Your task to perform on an android device: View the shopping cart on target. Search for alienware area 51 on target, select the first entry, and add it to the cart. Image 0: 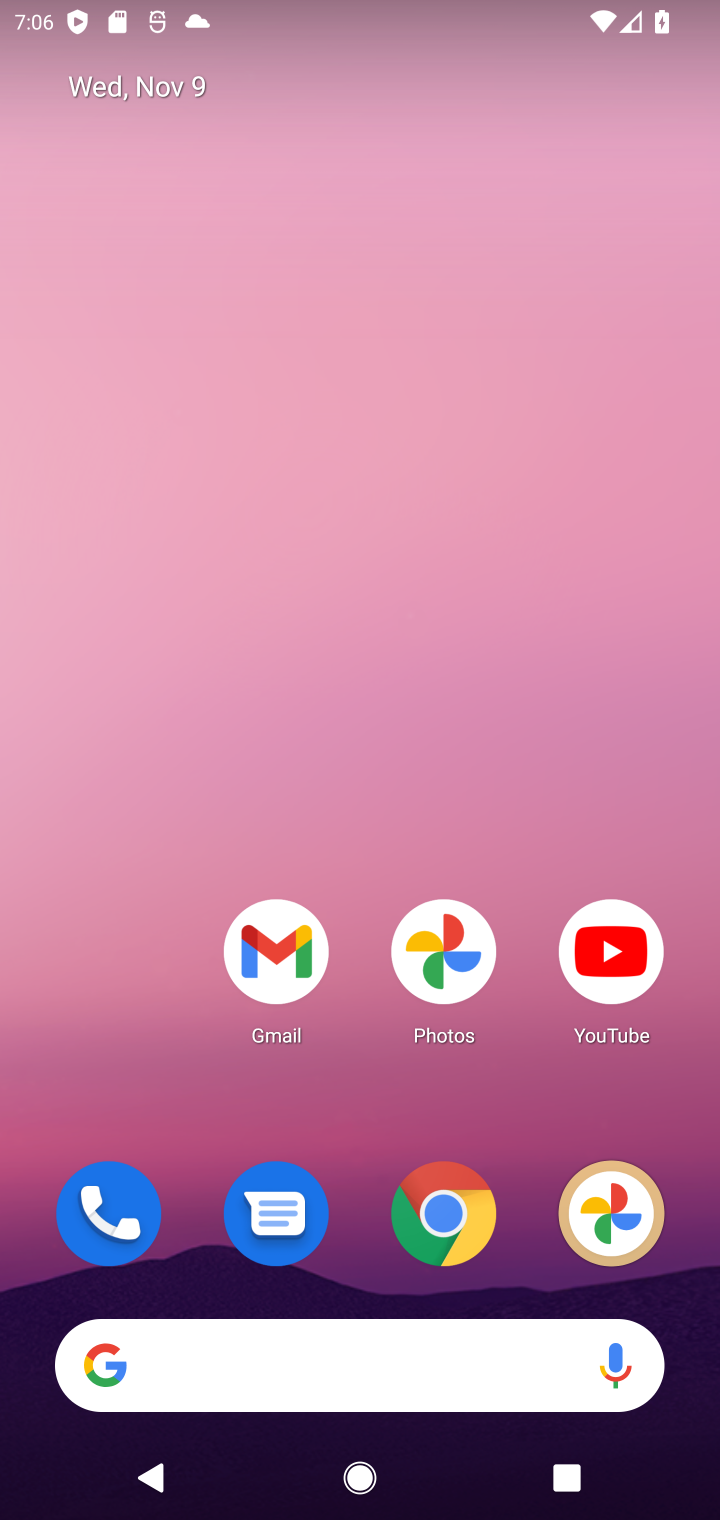
Step 0: click (457, 1225)
Your task to perform on an android device: View the shopping cart on target. Search for alienware area 51 on target, select the first entry, and add it to the cart. Image 1: 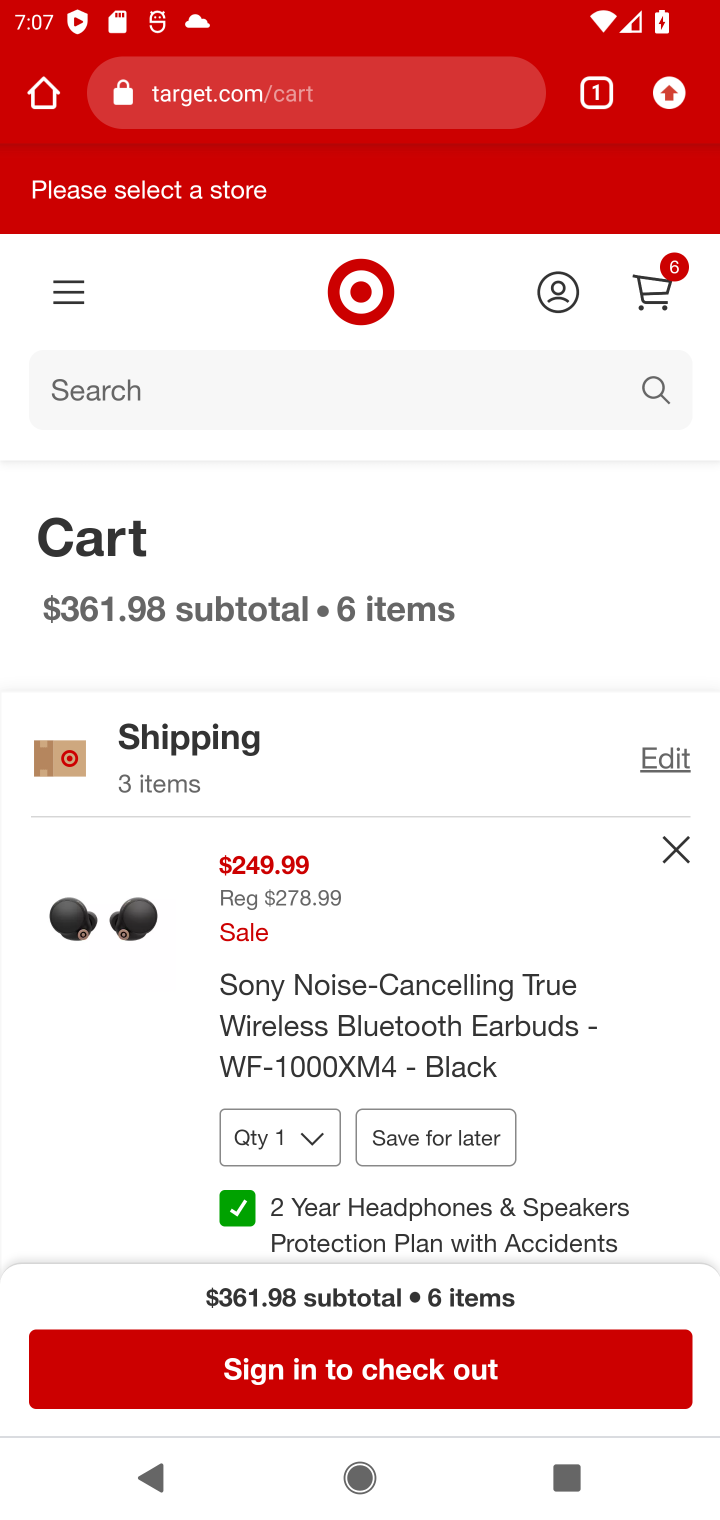
Step 1: click (214, 94)
Your task to perform on an android device: View the shopping cart on target. Search for alienware area 51 on target, select the first entry, and add it to the cart. Image 2: 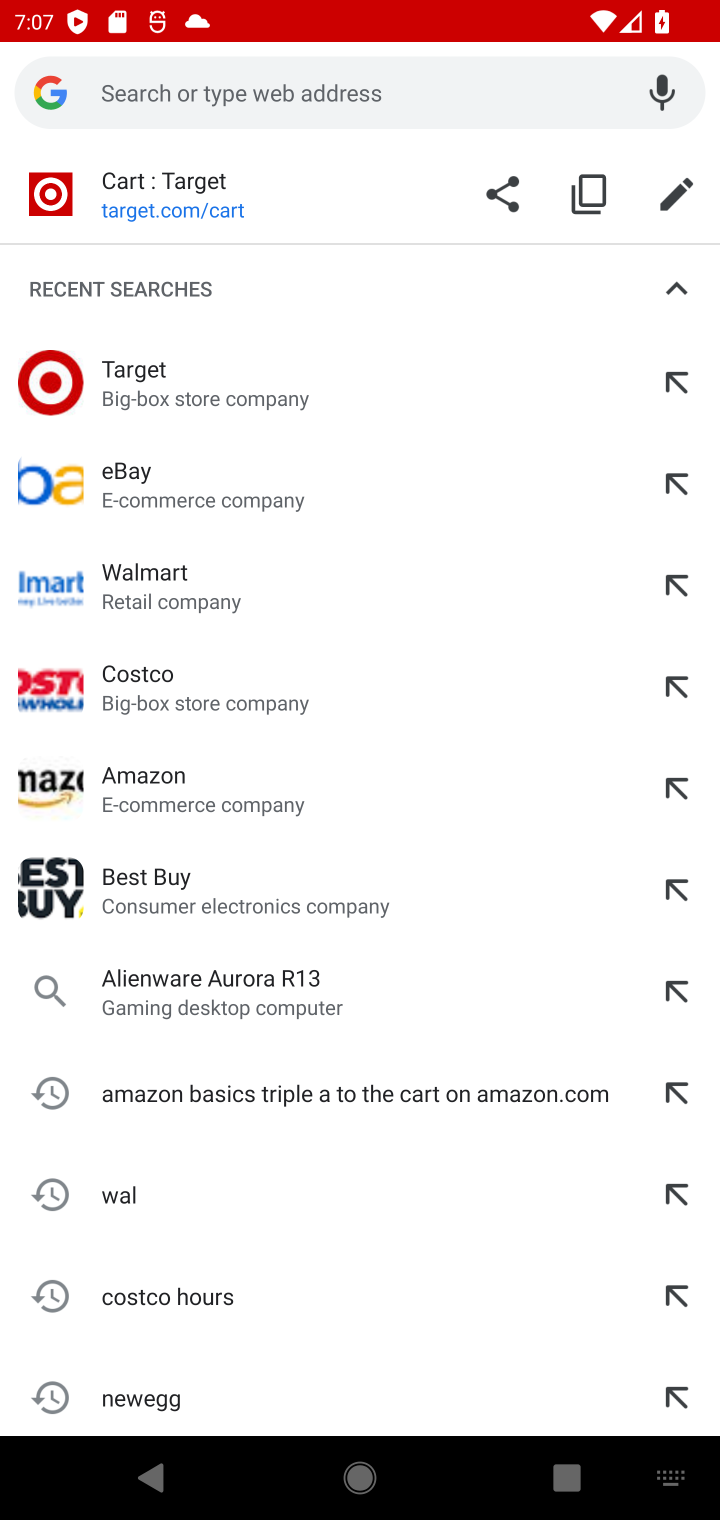
Step 2: type "target"
Your task to perform on an android device: View the shopping cart on target. Search for alienware area 51 on target, select the first entry, and add it to the cart. Image 3: 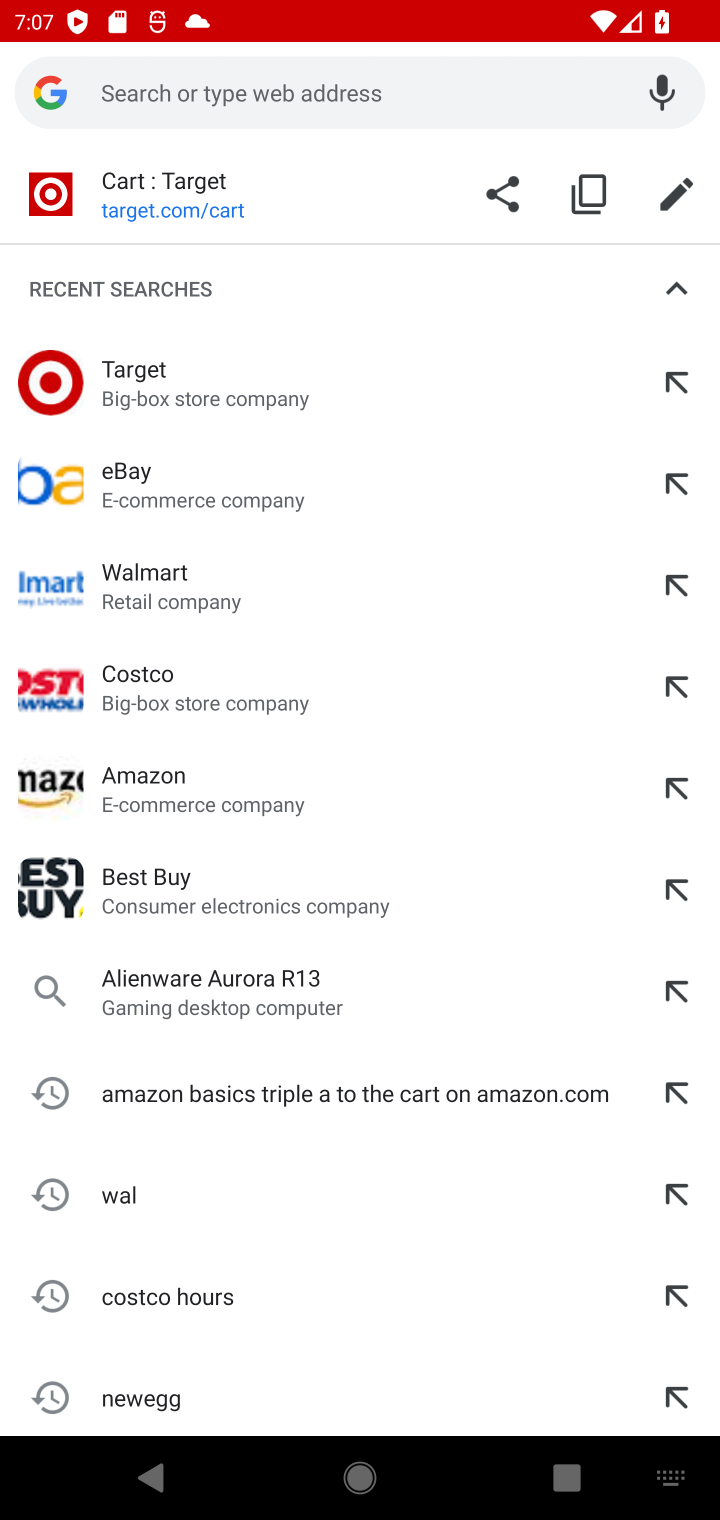
Step 3: click (178, 370)
Your task to perform on an android device: View the shopping cart on target. Search for alienware area 51 on target, select the first entry, and add it to the cart. Image 4: 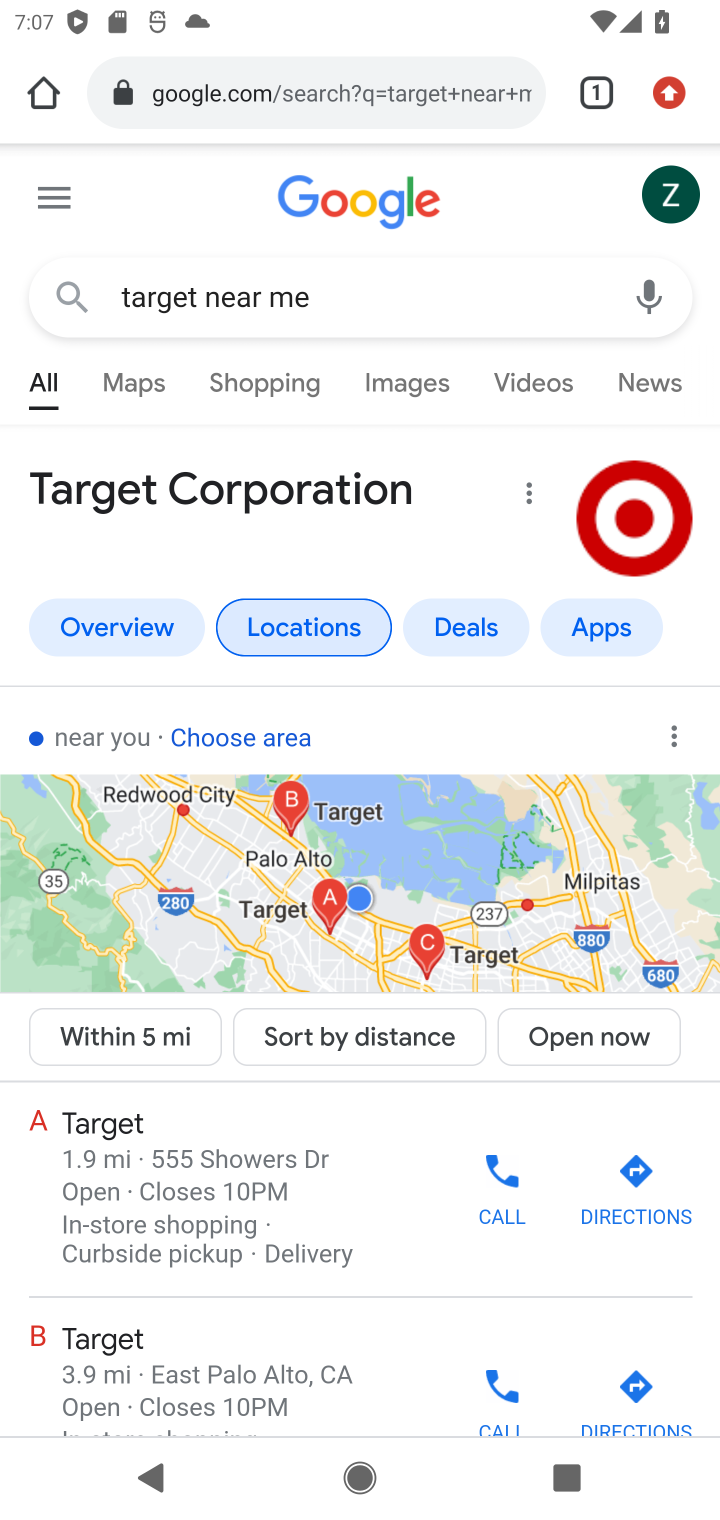
Step 4: drag from (266, 1234) to (388, 515)
Your task to perform on an android device: View the shopping cart on target. Search for alienware area 51 on target, select the first entry, and add it to the cart. Image 5: 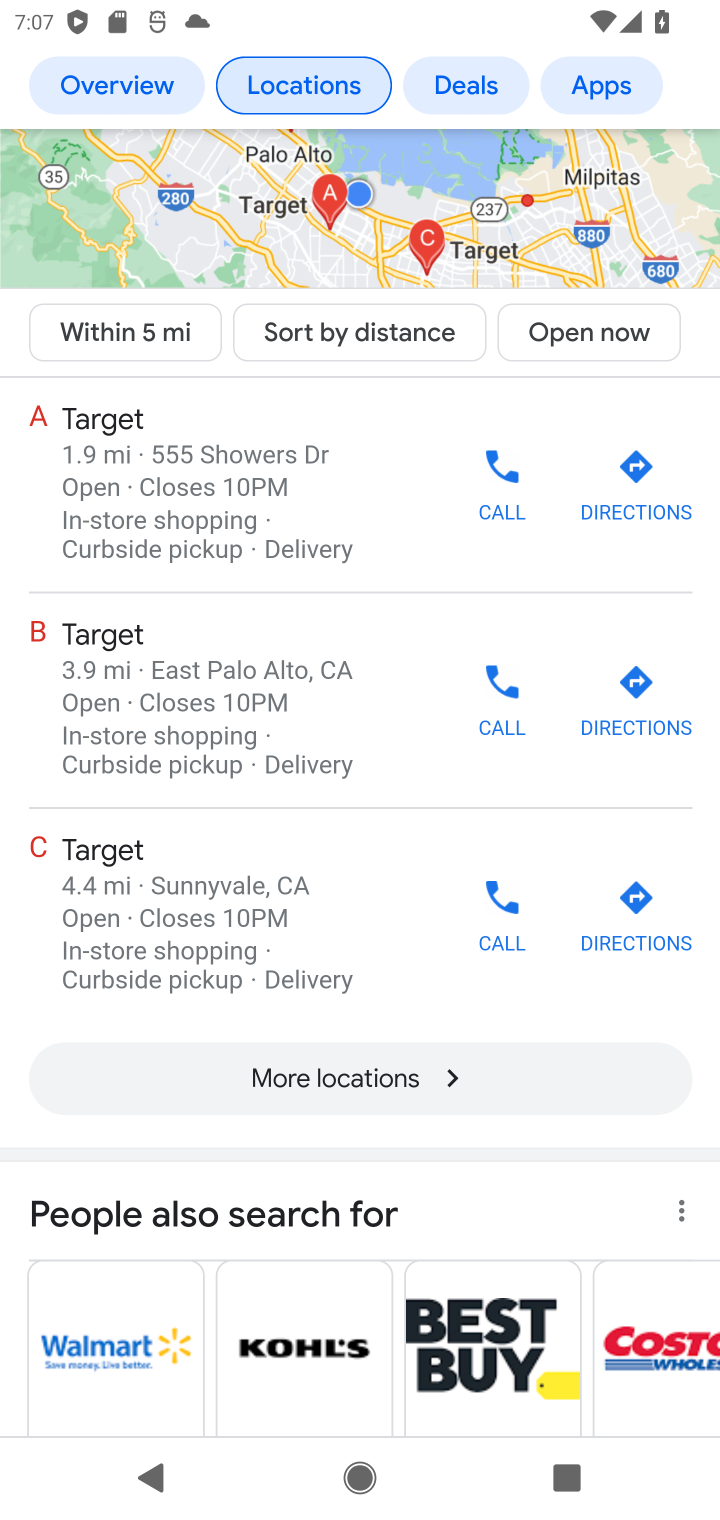
Step 5: drag from (196, 1301) to (206, 674)
Your task to perform on an android device: View the shopping cart on target. Search for alienware area 51 on target, select the first entry, and add it to the cart. Image 6: 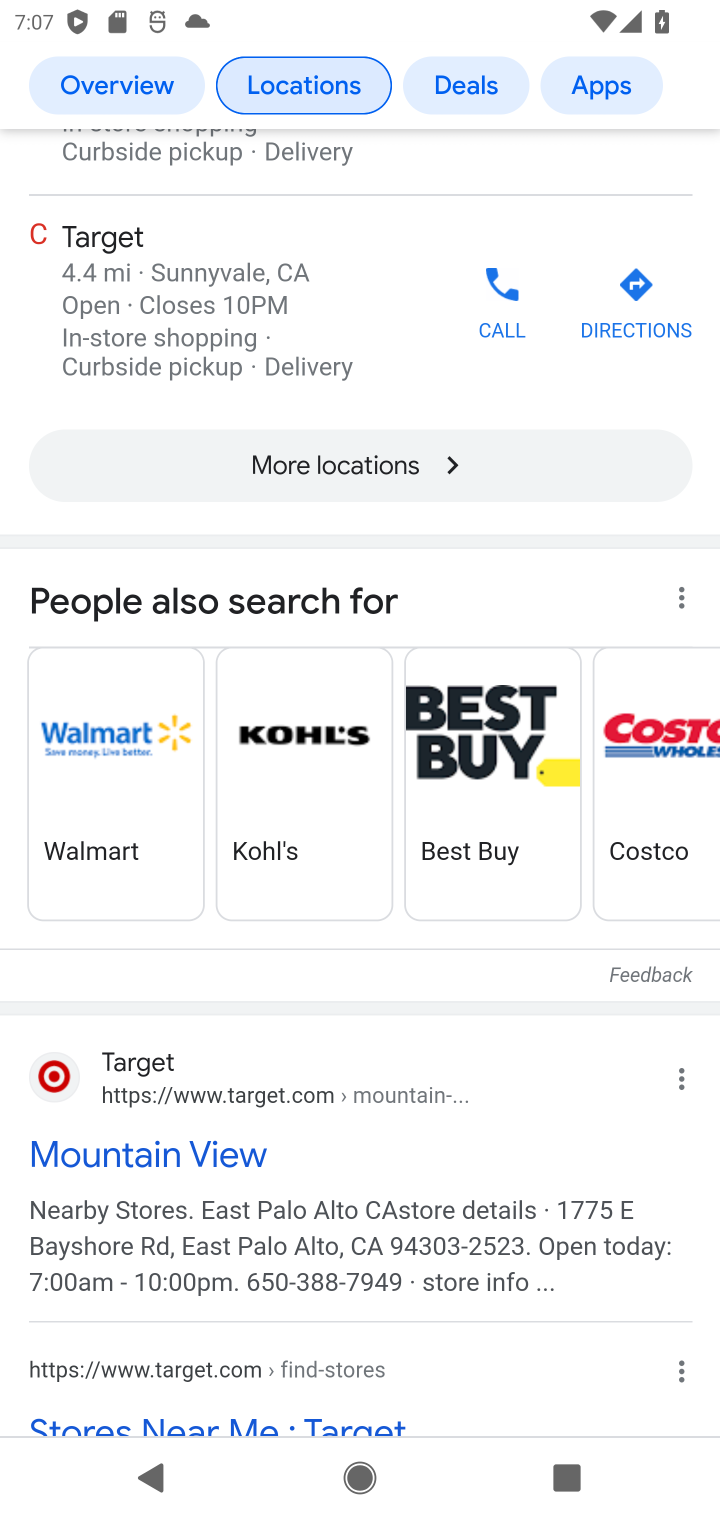
Step 6: click (187, 1236)
Your task to perform on an android device: View the shopping cart on target. Search for alienware area 51 on target, select the first entry, and add it to the cart. Image 7: 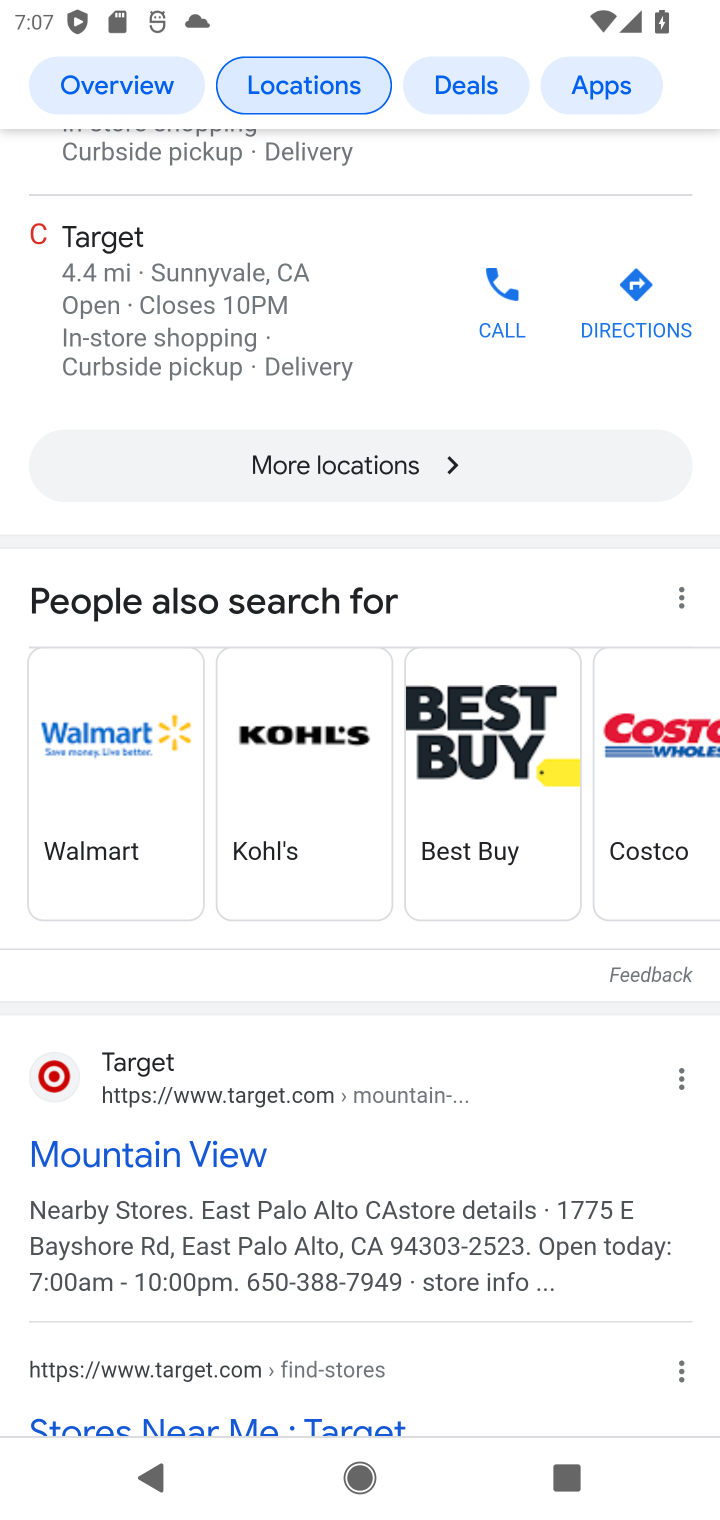
Step 7: click (73, 1164)
Your task to perform on an android device: View the shopping cart on target. Search for alienware area 51 on target, select the first entry, and add it to the cart. Image 8: 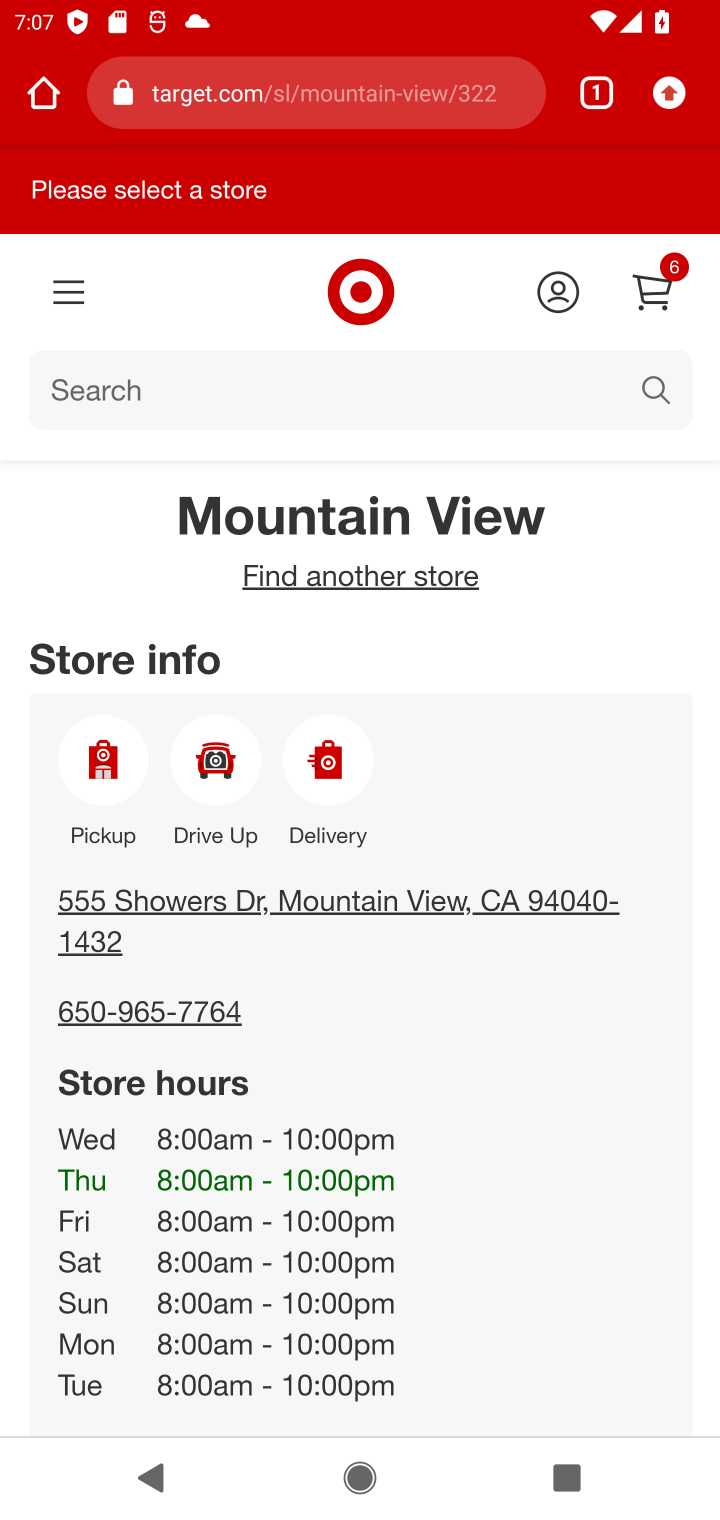
Step 8: click (508, 383)
Your task to perform on an android device: View the shopping cart on target. Search for alienware area 51 on target, select the first entry, and add it to the cart. Image 9: 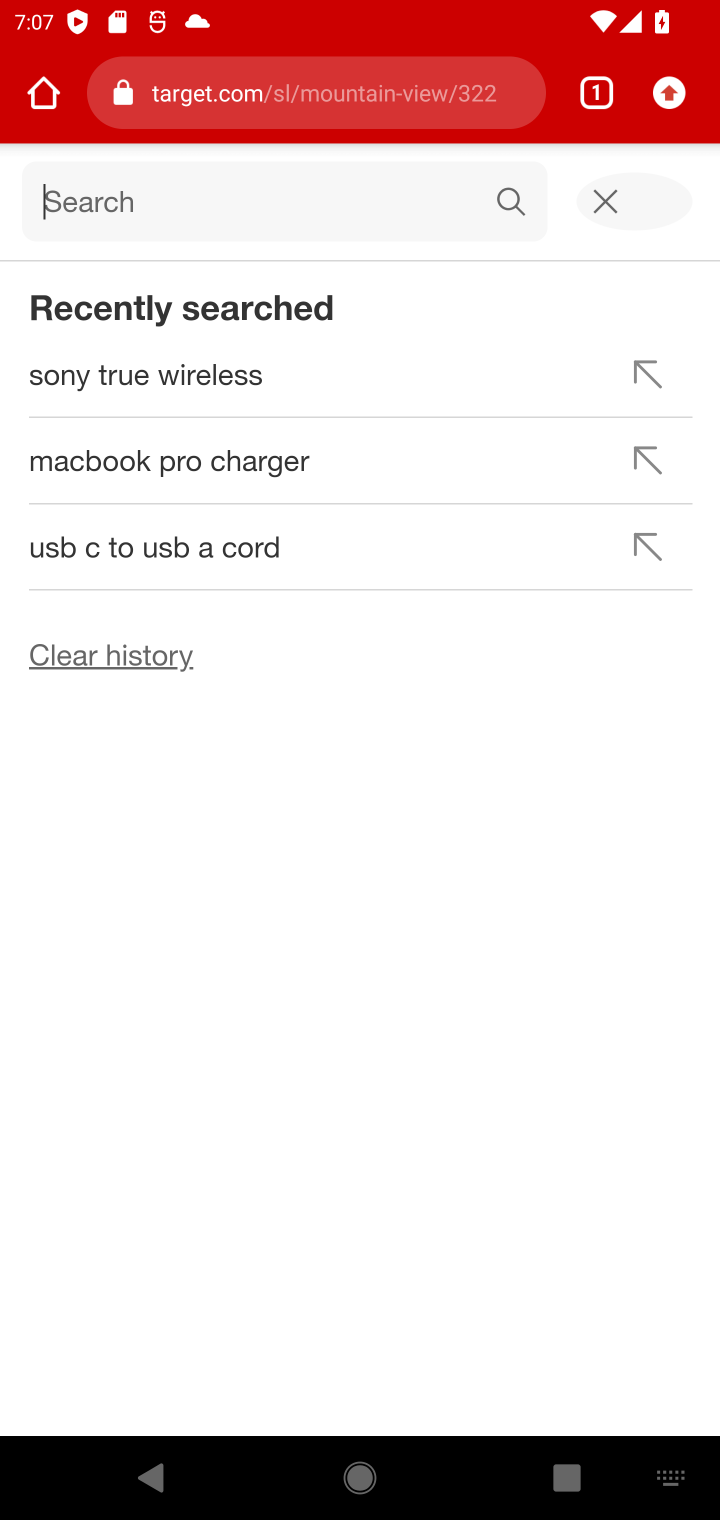
Step 9: type "alienware area 51"
Your task to perform on an android device: View the shopping cart on target. Search for alienware area 51 on target, select the first entry, and add it to the cart. Image 10: 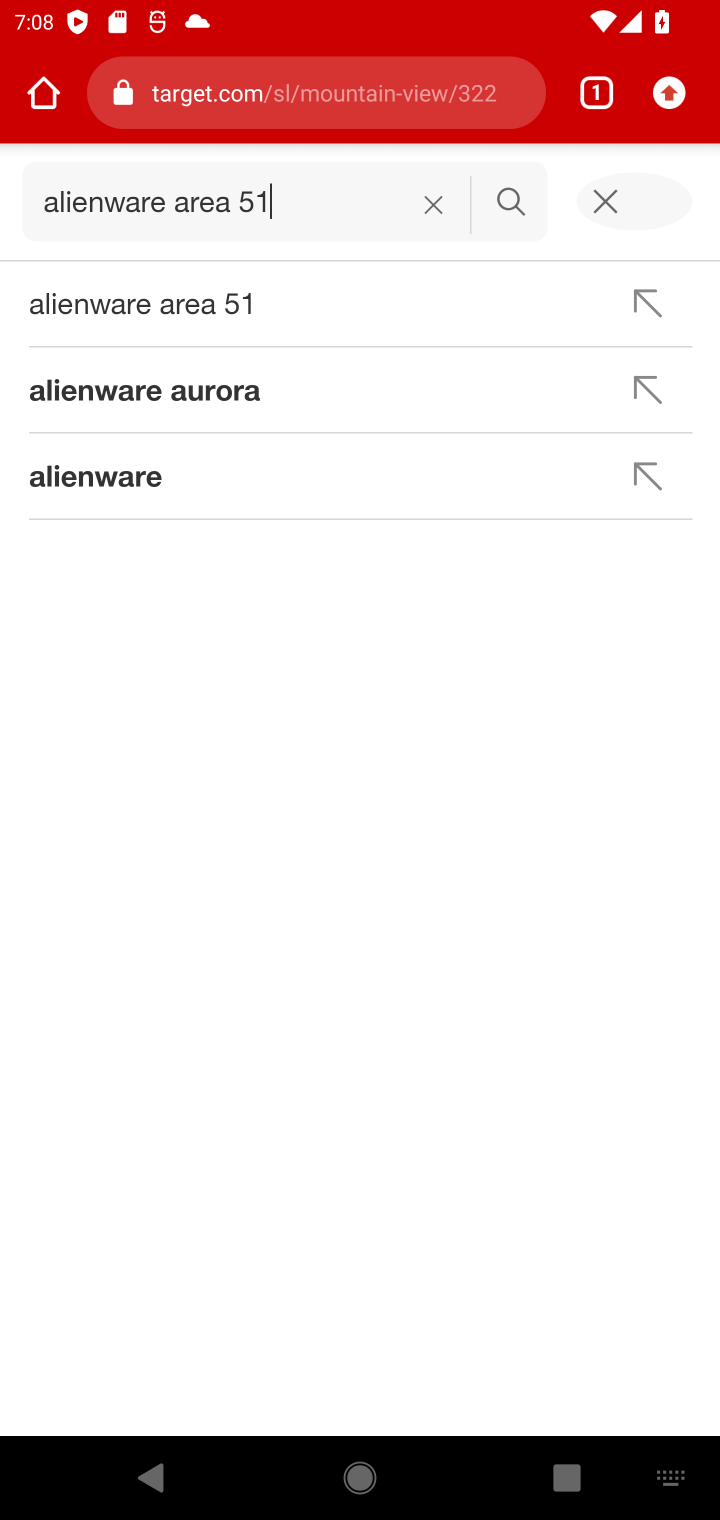
Step 10: click (167, 291)
Your task to perform on an android device: View the shopping cart on target. Search for alienware area 51 on target, select the first entry, and add it to the cart. Image 11: 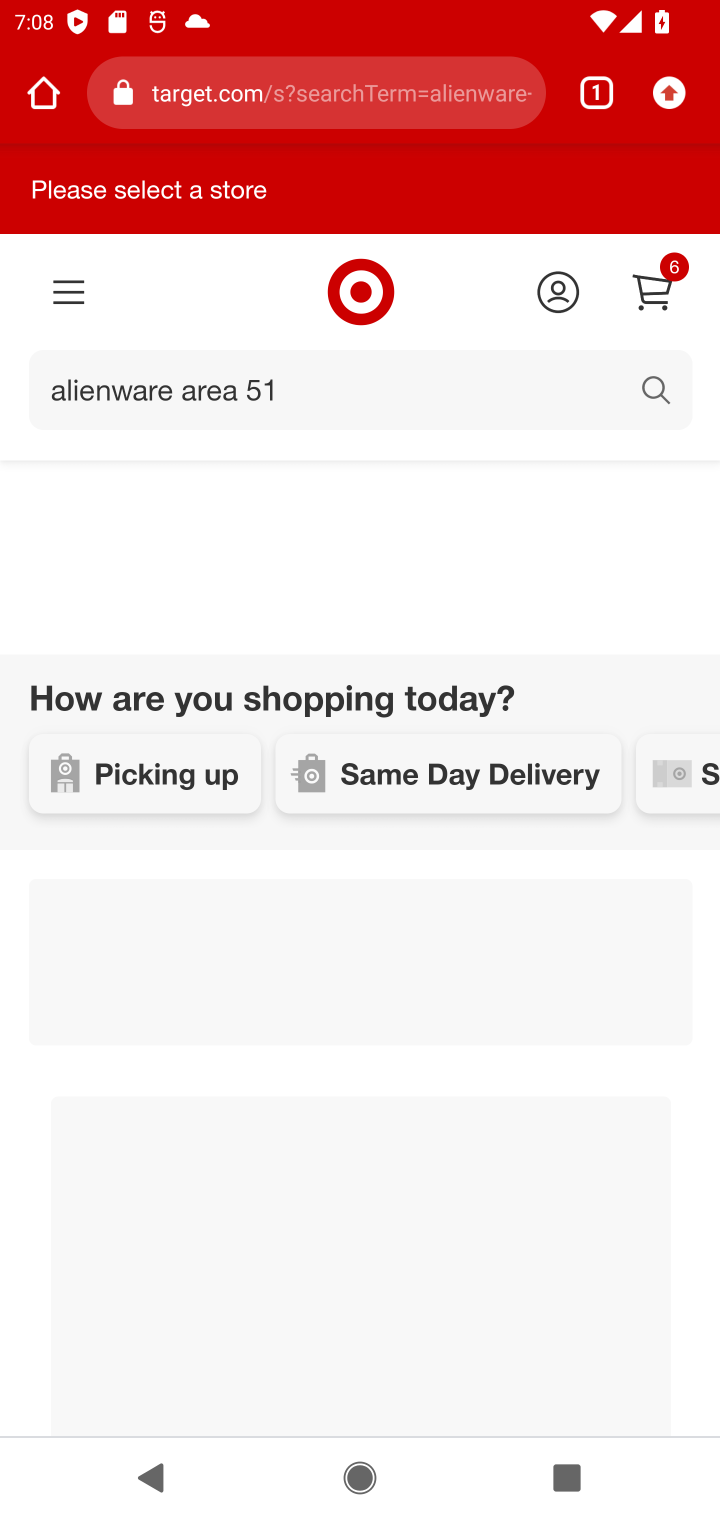
Step 11: drag from (244, 1059) to (347, 347)
Your task to perform on an android device: View the shopping cart on target. Search for alienware area 51 on target, select the first entry, and add it to the cart. Image 12: 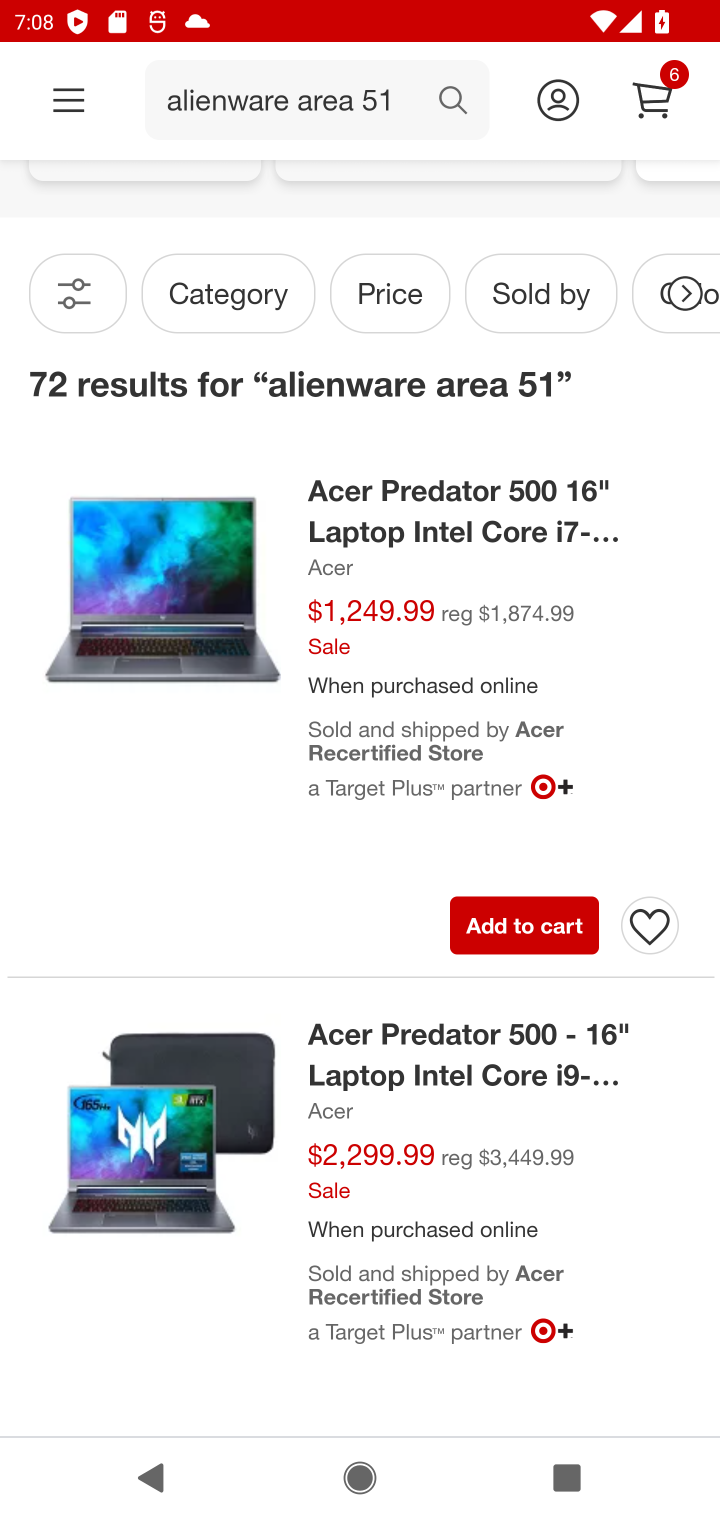
Step 12: drag from (220, 1129) to (330, 546)
Your task to perform on an android device: View the shopping cart on target. Search for alienware area 51 on target, select the first entry, and add it to the cart. Image 13: 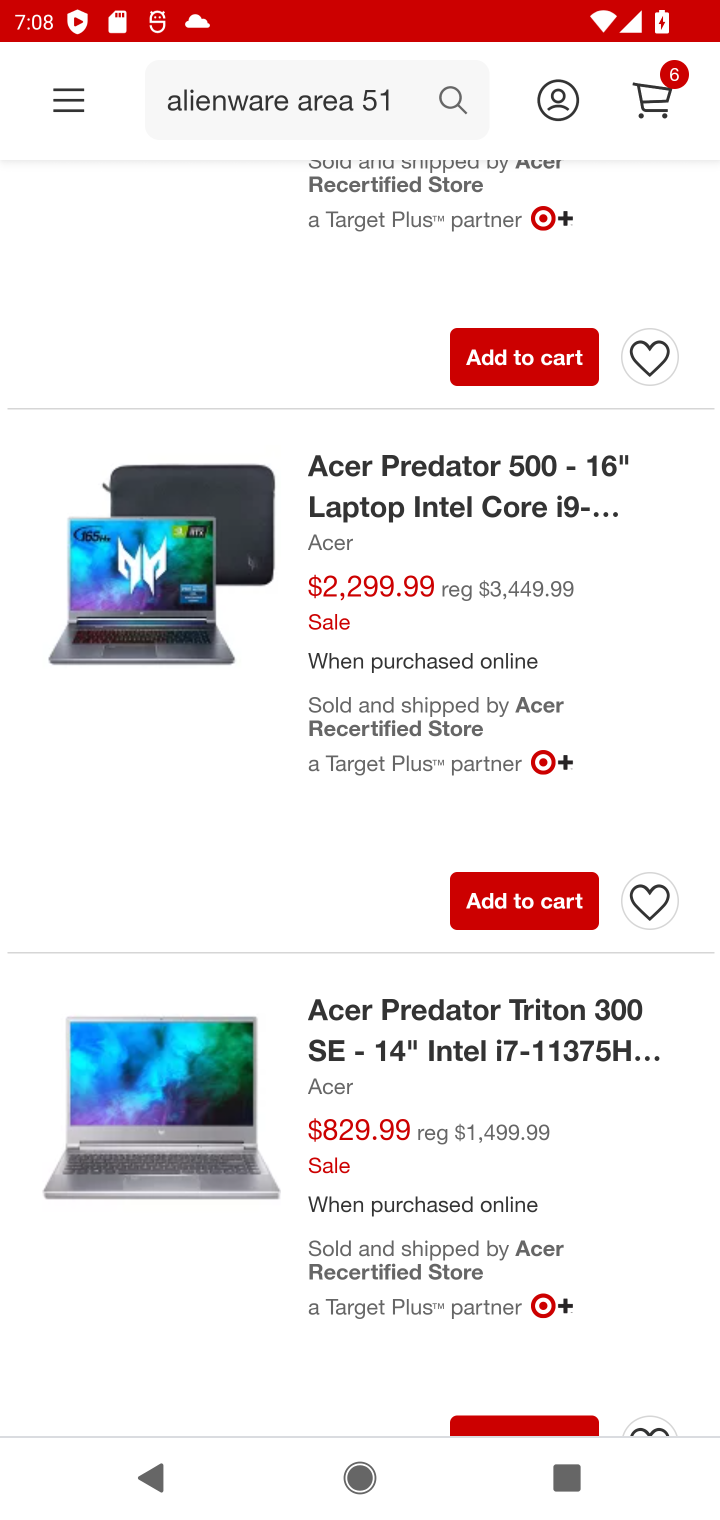
Step 13: click (440, 1019)
Your task to perform on an android device: View the shopping cart on target. Search for alienware area 51 on target, select the first entry, and add it to the cart. Image 14: 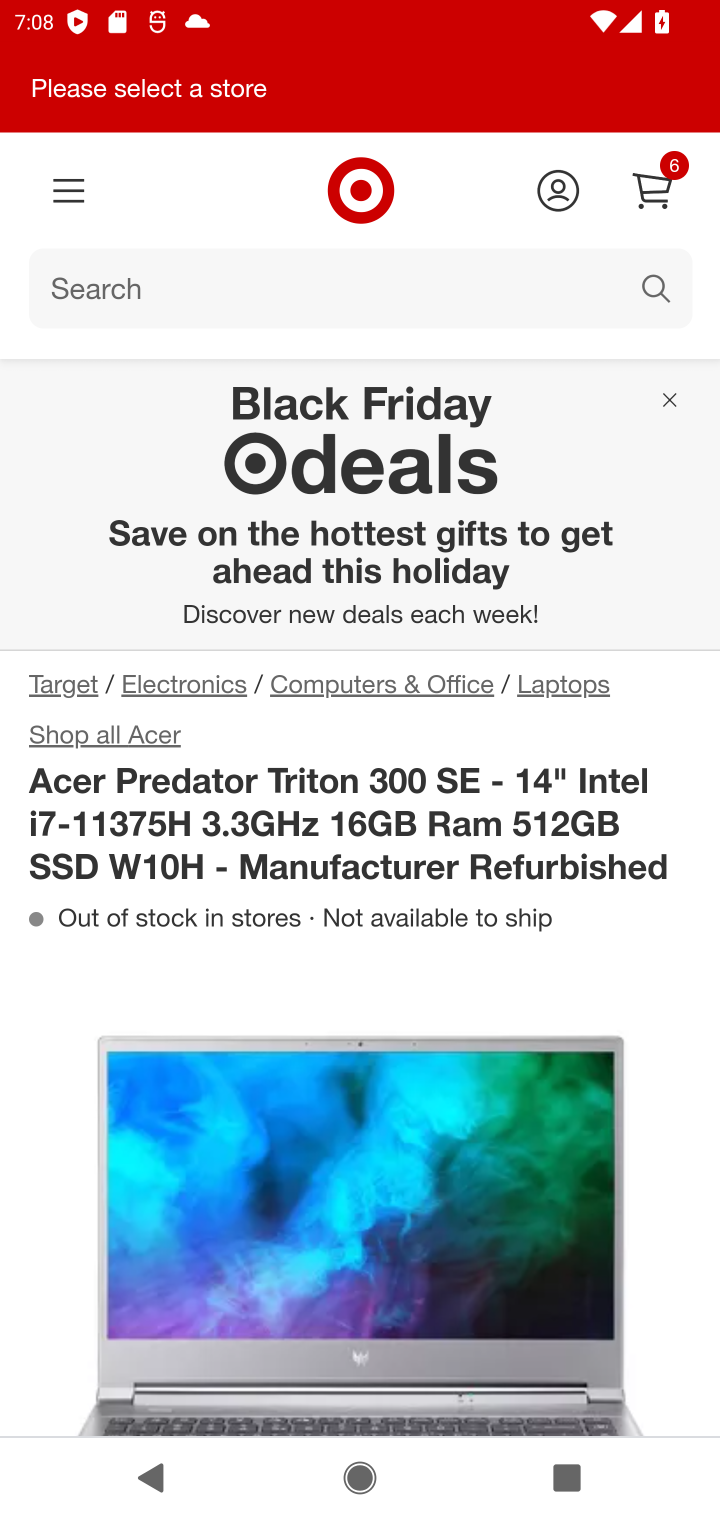
Step 14: drag from (343, 1125) to (464, 599)
Your task to perform on an android device: View the shopping cart on target. Search for alienware area 51 on target, select the first entry, and add it to the cart. Image 15: 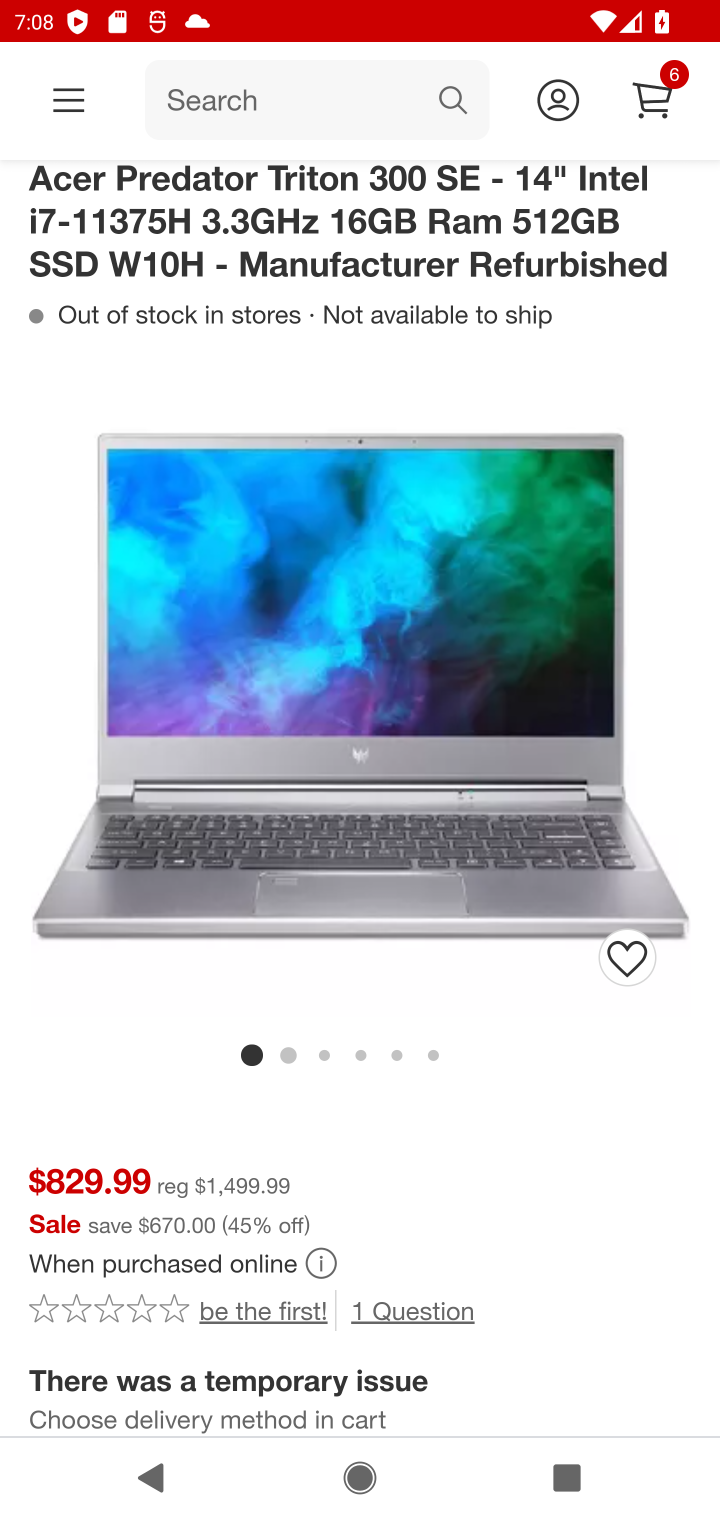
Step 15: drag from (327, 1201) to (411, 166)
Your task to perform on an android device: View the shopping cart on target. Search for alienware area 51 on target, select the first entry, and add it to the cart. Image 16: 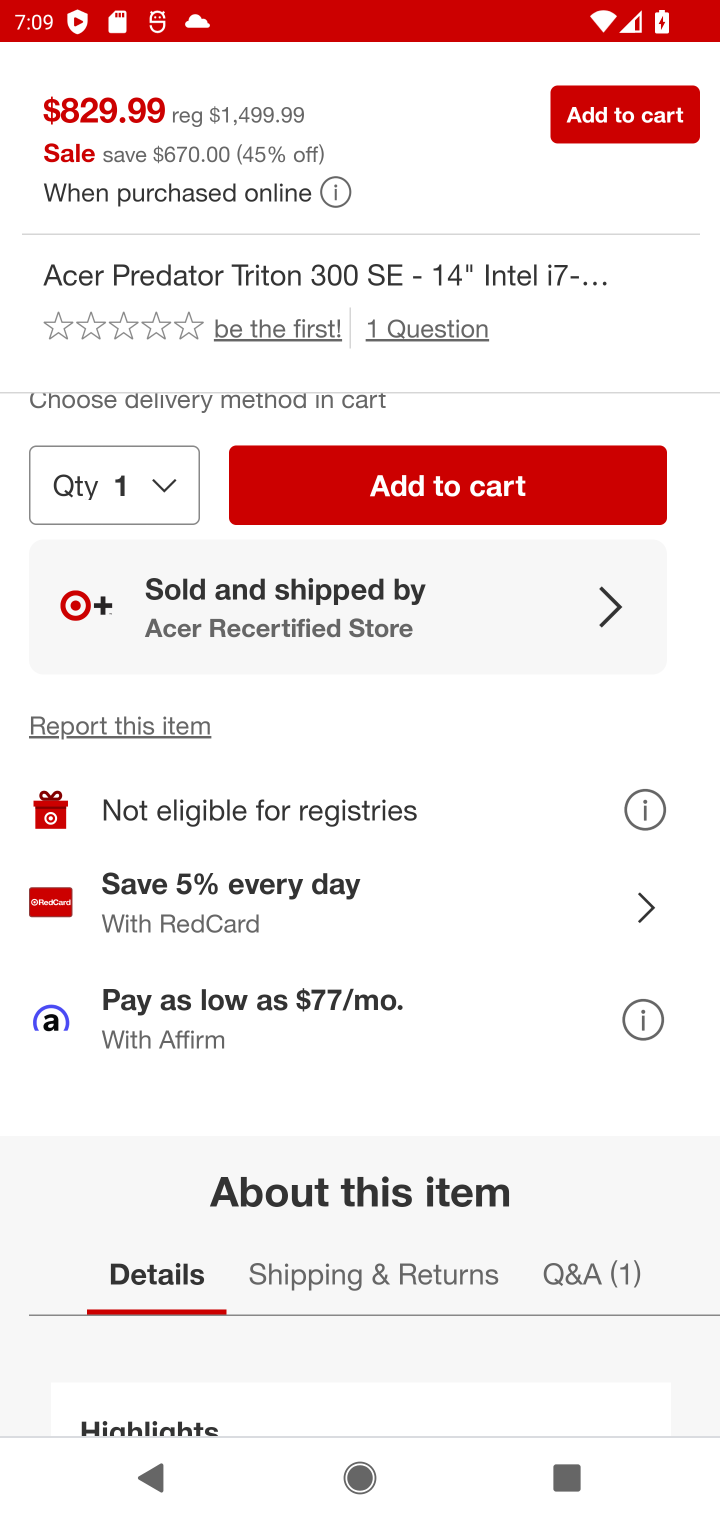
Step 16: click (461, 513)
Your task to perform on an android device: View the shopping cart on target. Search for alienware area 51 on target, select the first entry, and add it to the cart. Image 17: 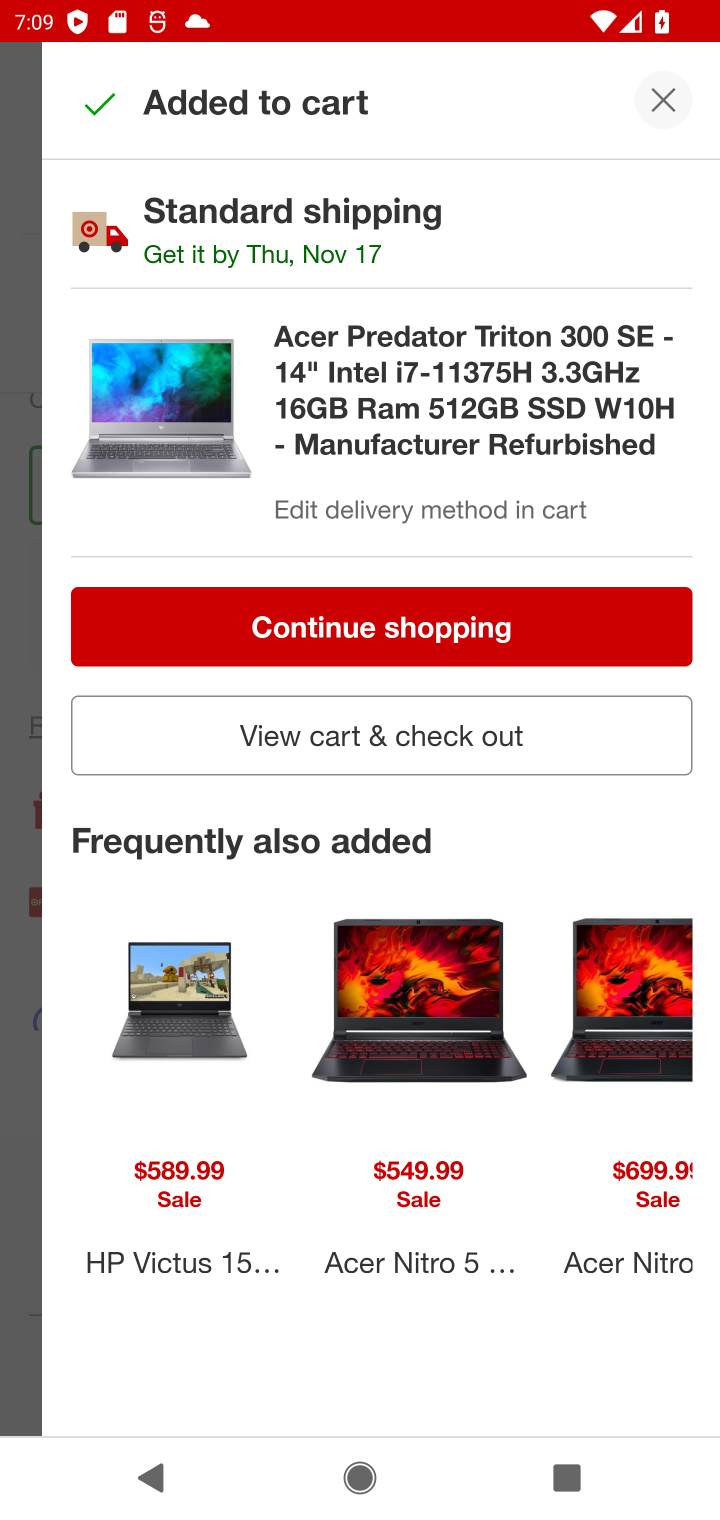
Step 17: click (322, 729)
Your task to perform on an android device: View the shopping cart on target. Search for alienware area 51 on target, select the first entry, and add it to the cart. Image 18: 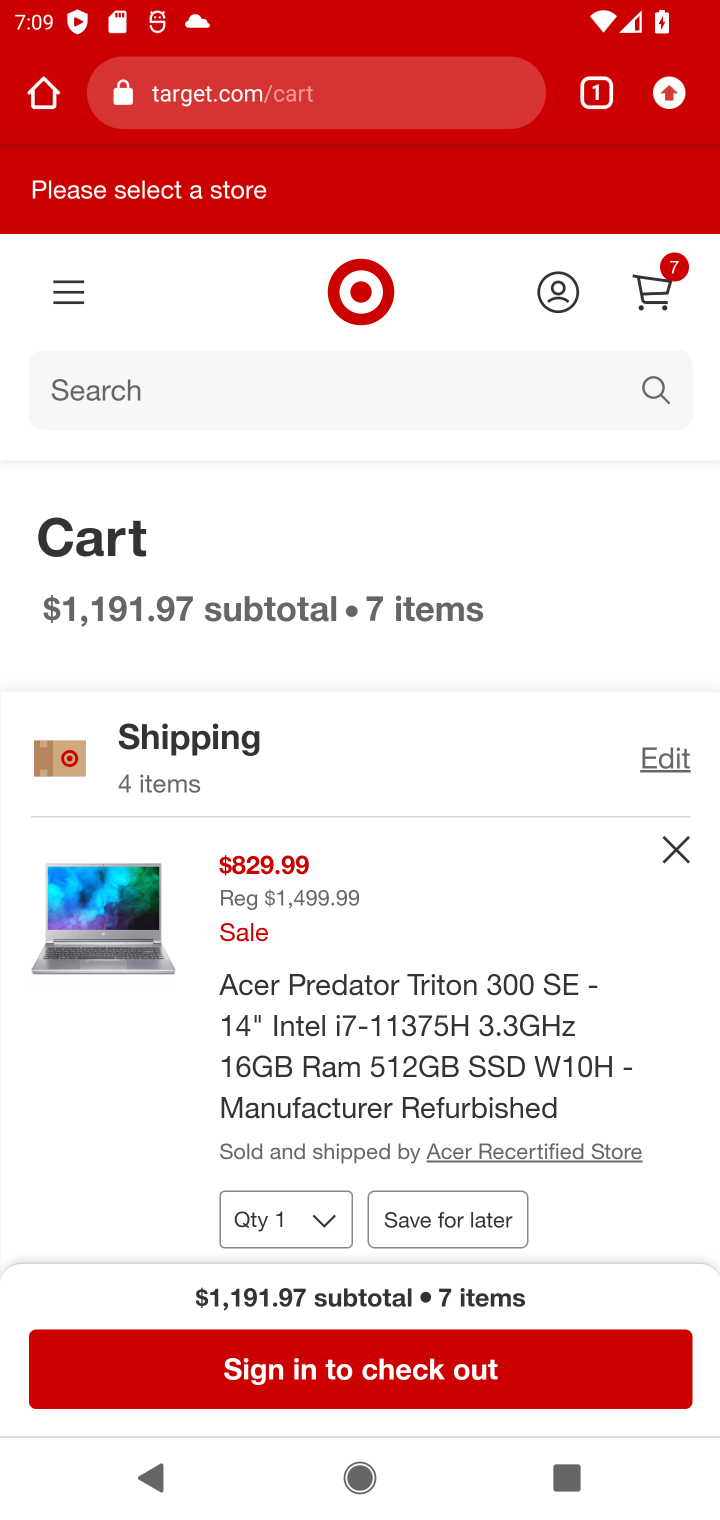
Step 18: task complete